Your task to perform on an android device: Open settings on Google Maps Image 0: 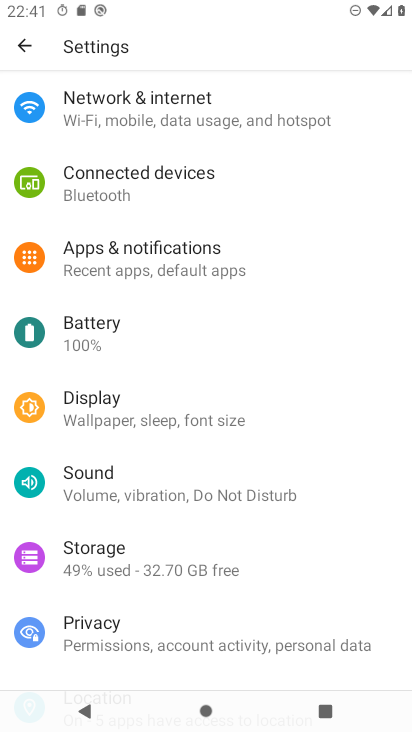
Step 0: press home button
Your task to perform on an android device: Open settings on Google Maps Image 1: 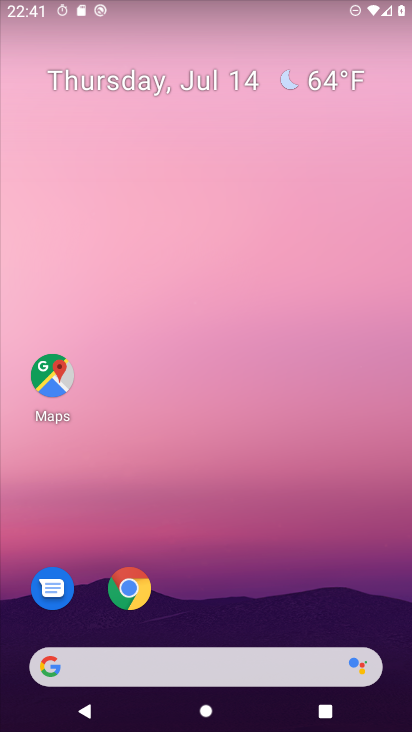
Step 1: drag from (331, 572) to (319, 204)
Your task to perform on an android device: Open settings on Google Maps Image 2: 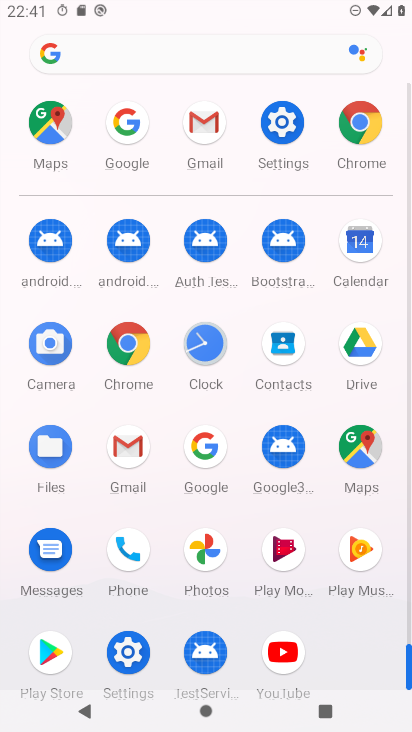
Step 2: click (362, 448)
Your task to perform on an android device: Open settings on Google Maps Image 3: 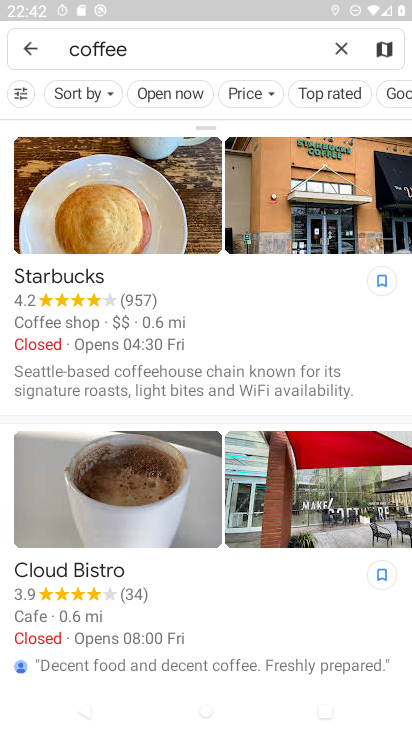
Step 3: press back button
Your task to perform on an android device: Open settings on Google Maps Image 4: 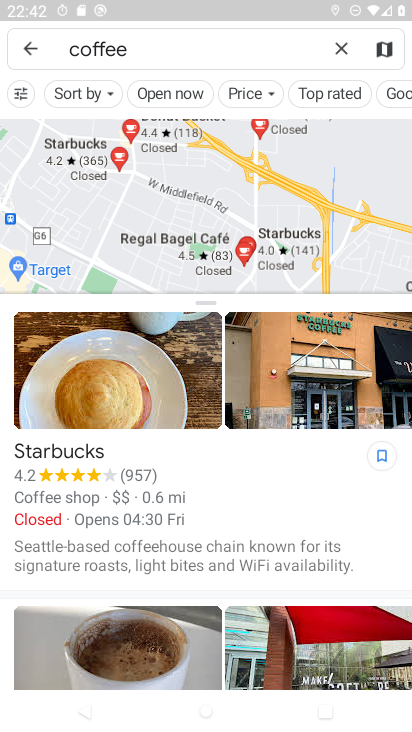
Step 4: press back button
Your task to perform on an android device: Open settings on Google Maps Image 5: 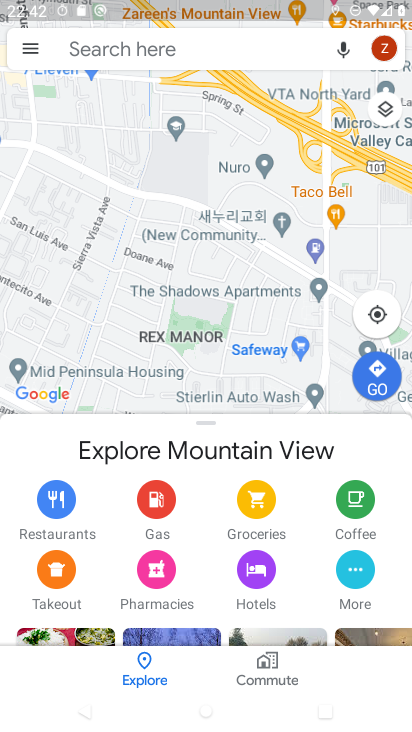
Step 5: click (28, 50)
Your task to perform on an android device: Open settings on Google Maps Image 6: 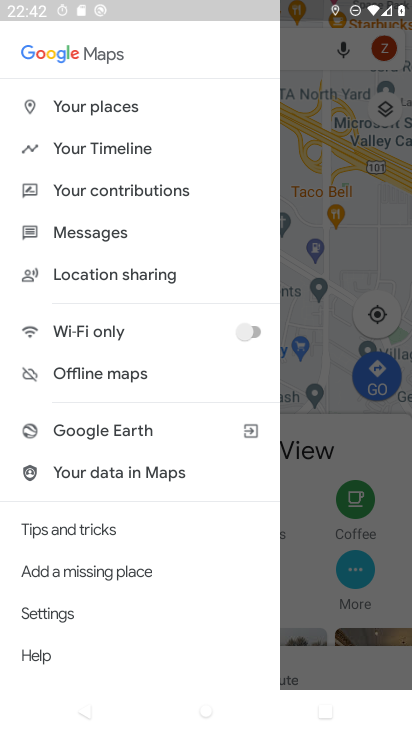
Step 6: drag from (190, 485) to (201, 345)
Your task to perform on an android device: Open settings on Google Maps Image 7: 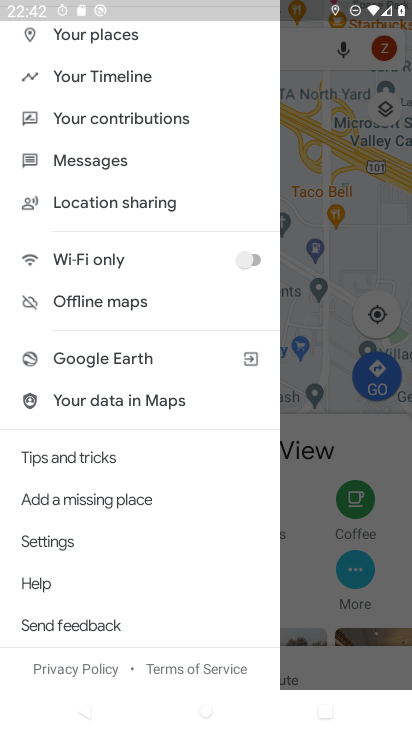
Step 7: click (138, 547)
Your task to perform on an android device: Open settings on Google Maps Image 8: 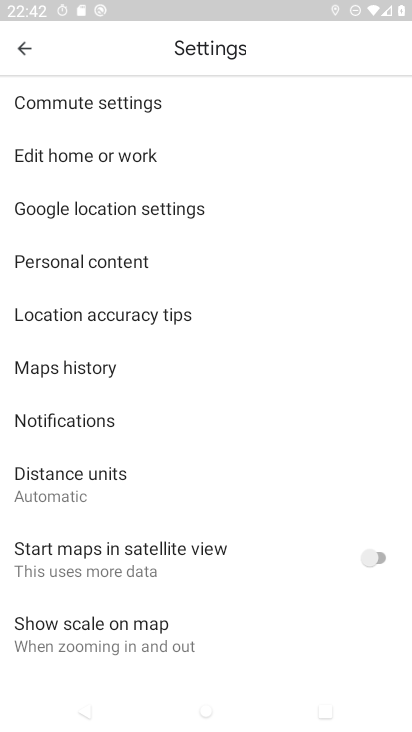
Step 8: task complete